Your task to perform on an android device: check data usage Image 0: 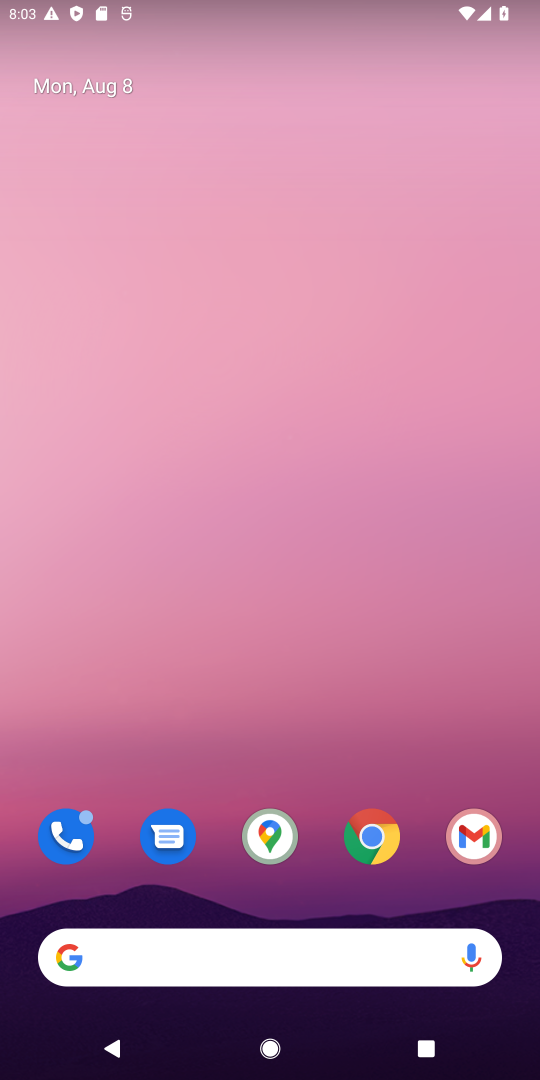
Step 0: drag from (322, 752) to (261, 78)
Your task to perform on an android device: check data usage Image 1: 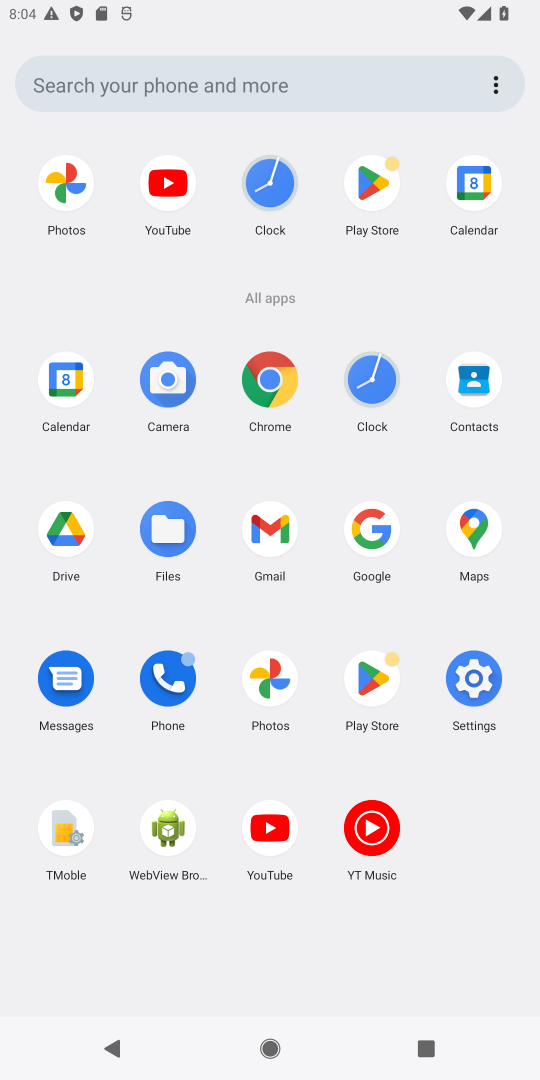
Step 1: click (461, 671)
Your task to perform on an android device: check data usage Image 2: 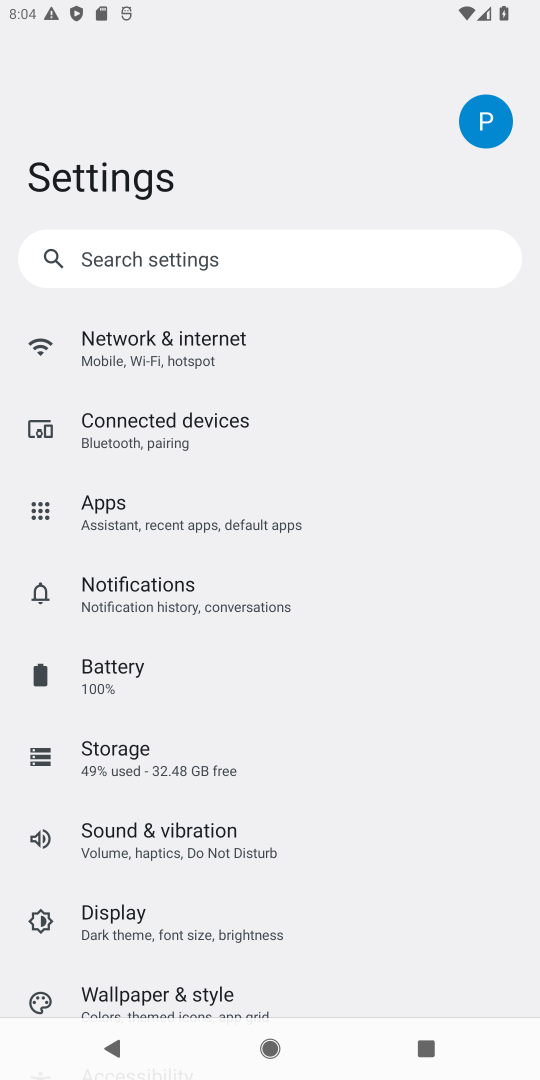
Step 2: click (207, 332)
Your task to perform on an android device: check data usage Image 3: 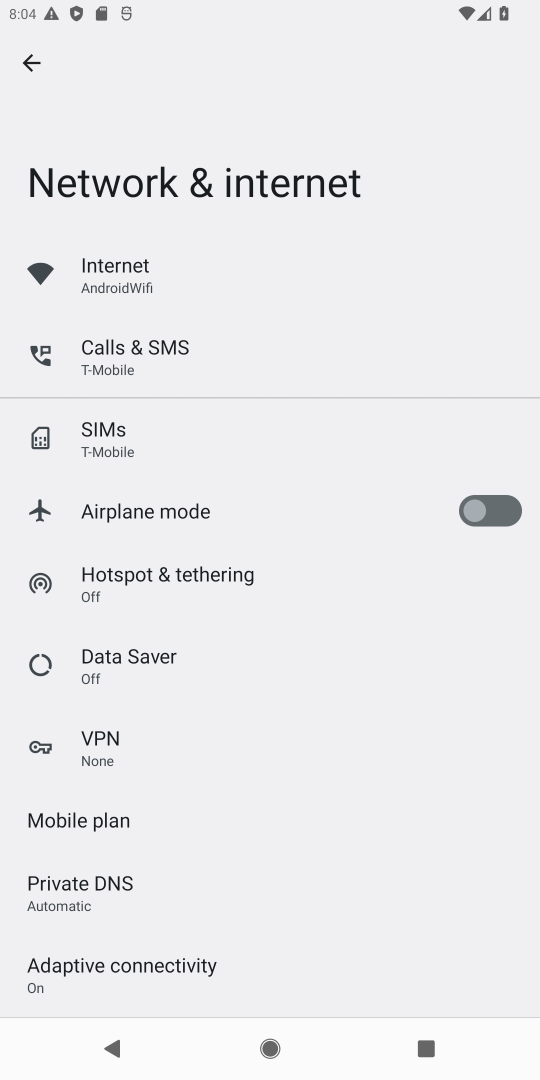
Step 3: click (166, 285)
Your task to perform on an android device: check data usage Image 4: 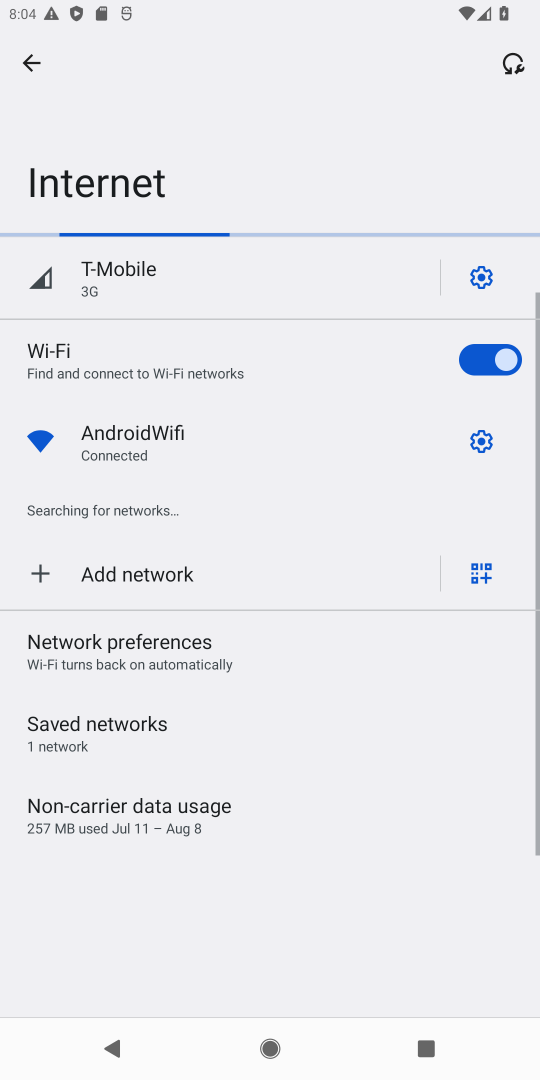
Step 4: click (274, 832)
Your task to perform on an android device: check data usage Image 5: 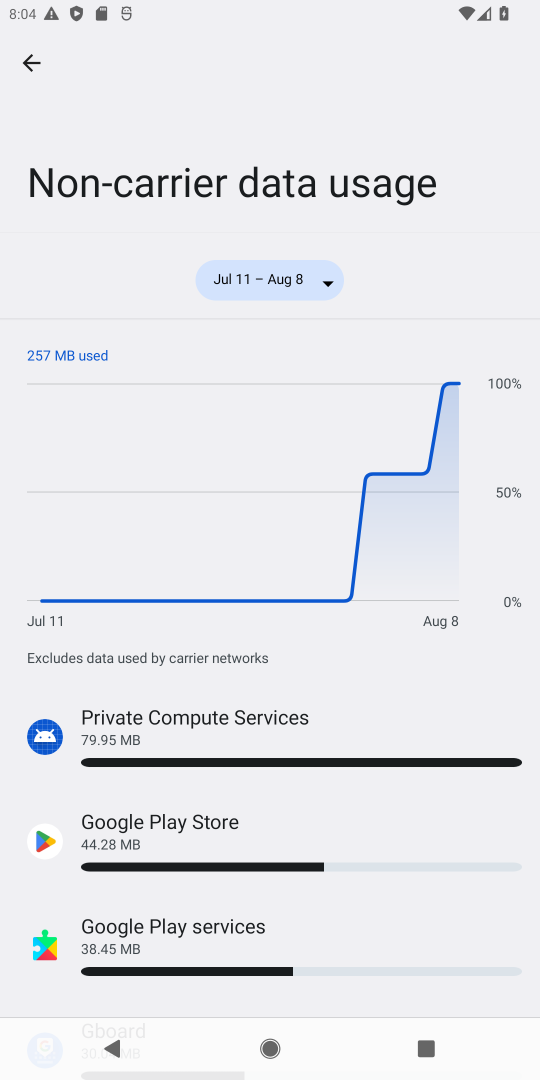
Step 5: task complete